Your task to perform on an android device: change your default location settings in chrome Image 0: 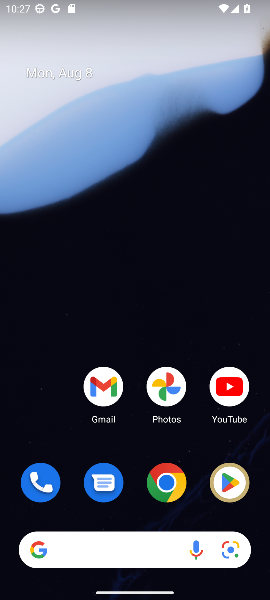
Step 0: click (168, 479)
Your task to perform on an android device: change your default location settings in chrome Image 1: 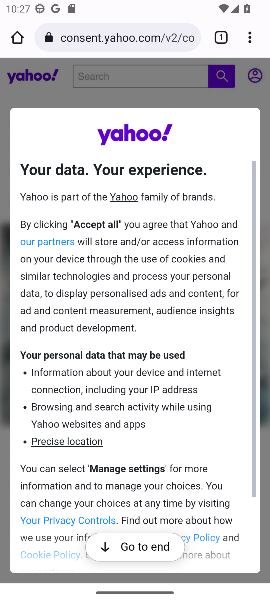
Step 1: click (252, 32)
Your task to perform on an android device: change your default location settings in chrome Image 2: 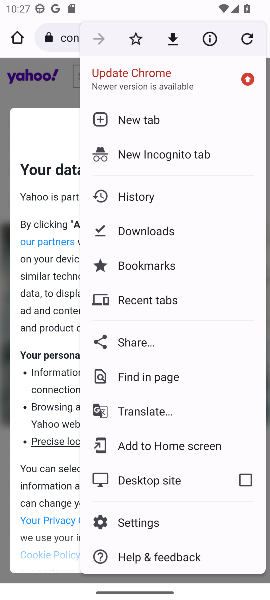
Step 2: click (156, 526)
Your task to perform on an android device: change your default location settings in chrome Image 3: 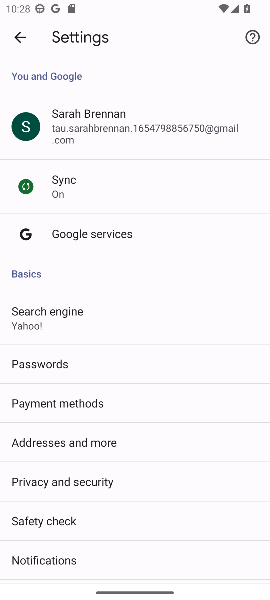
Step 3: drag from (82, 540) to (82, 157)
Your task to perform on an android device: change your default location settings in chrome Image 4: 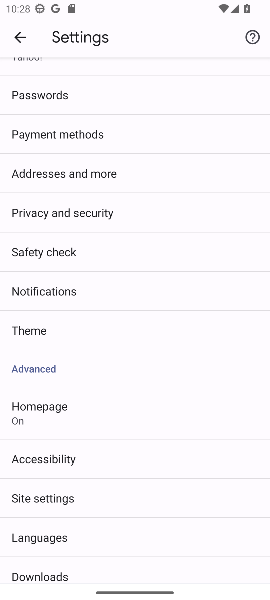
Step 4: click (74, 506)
Your task to perform on an android device: change your default location settings in chrome Image 5: 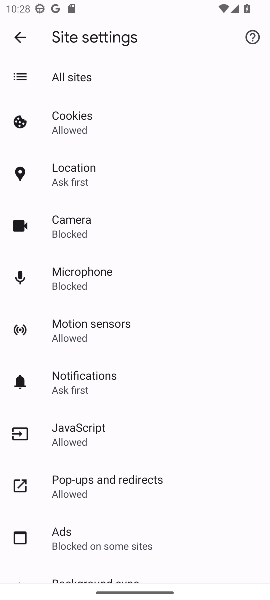
Step 5: click (120, 167)
Your task to perform on an android device: change your default location settings in chrome Image 6: 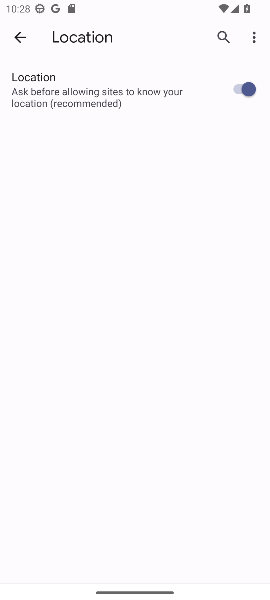
Step 6: click (246, 80)
Your task to perform on an android device: change your default location settings in chrome Image 7: 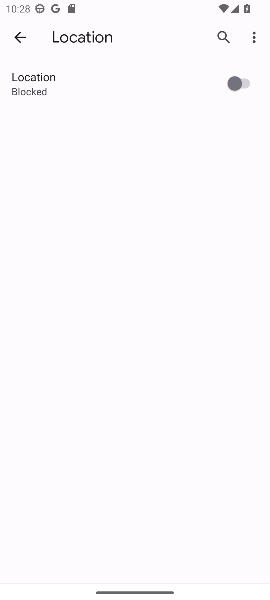
Step 7: task complete